Your task to perform on an android device: Go to privacy settings Image 0: 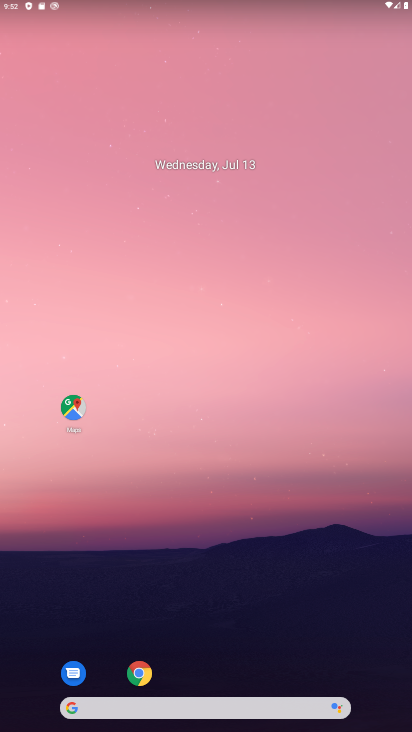
Step 0: drag from (268, 682) to (259, 376)
Your task to perform on an android device: Go to privacy settings Image 1: 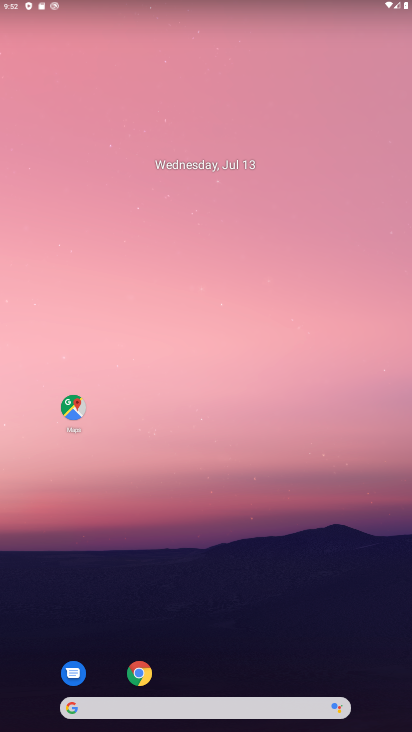
Step 1: drag from (187, 556) to (227, 198)
Your task to perform on an android device: Go to privacy settings Image 2: 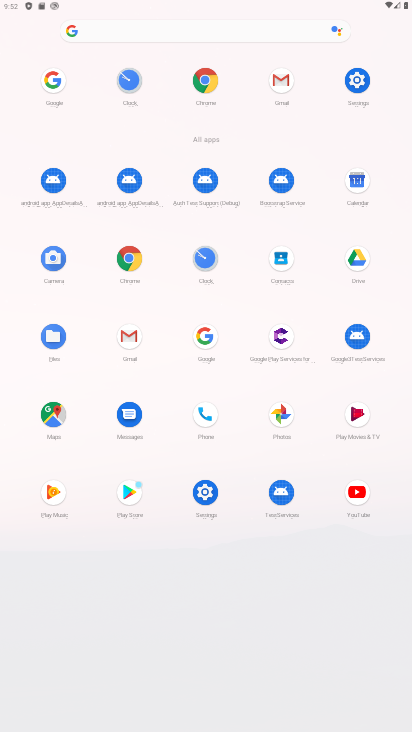
Step 2: click (341, 77)
Your task to perform on an android device: Go to privacy settings Image 3: 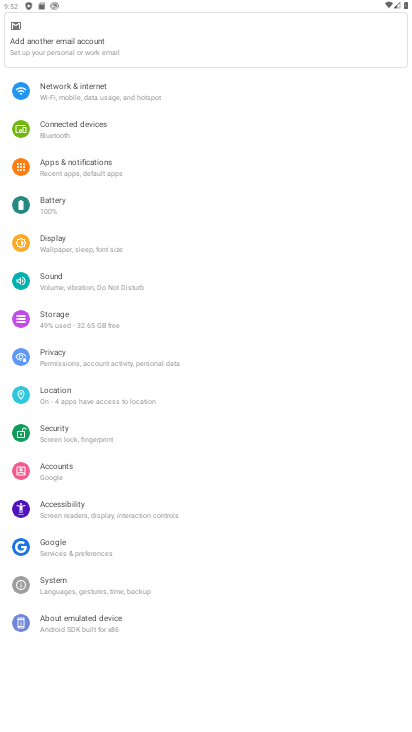
Step 3: click (65, 355)
Your task to perform on an android device: Go to privacy settings Image 4: 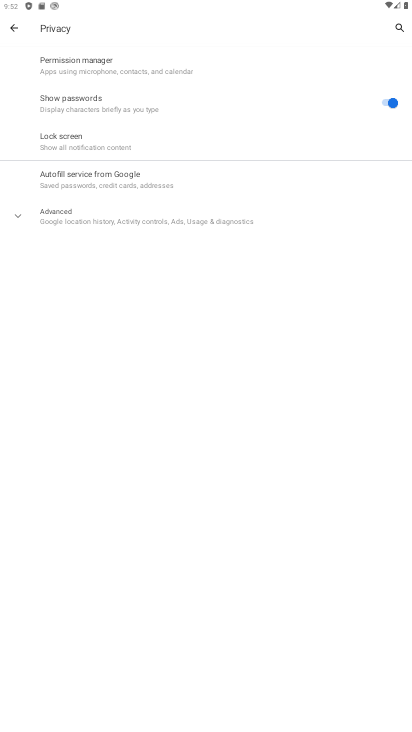
Step 4: click (89, 220)
Your task to perform on an android device: Go to privacy settings Image 5: 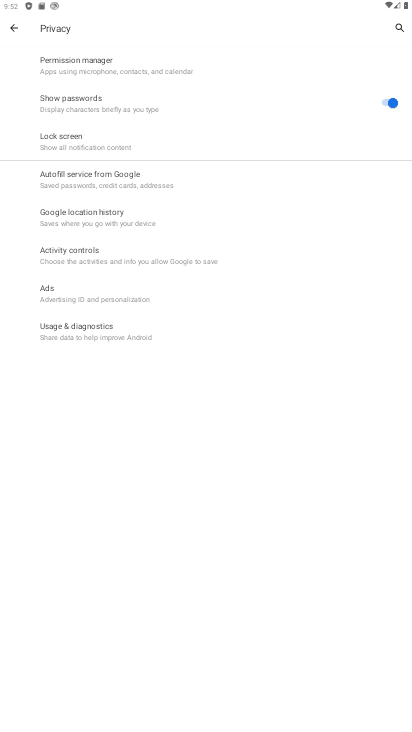
Step 5: task complete